Your task to perform on an android device: Open Google Chrome Image 0: 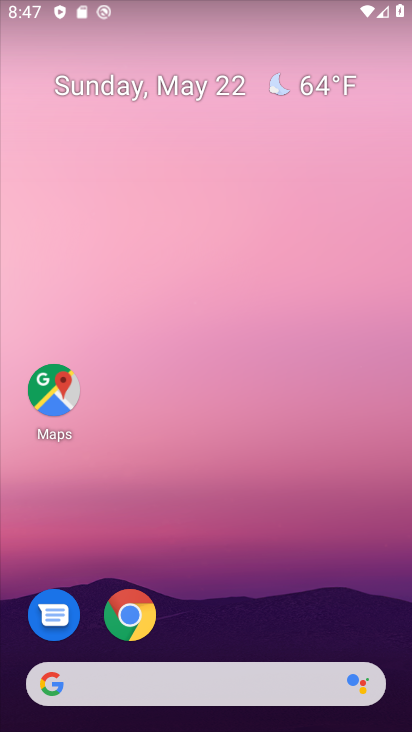
Step 0: click (139, 623)
Your task to perform on an android device: Open Google Chrome Image 1: 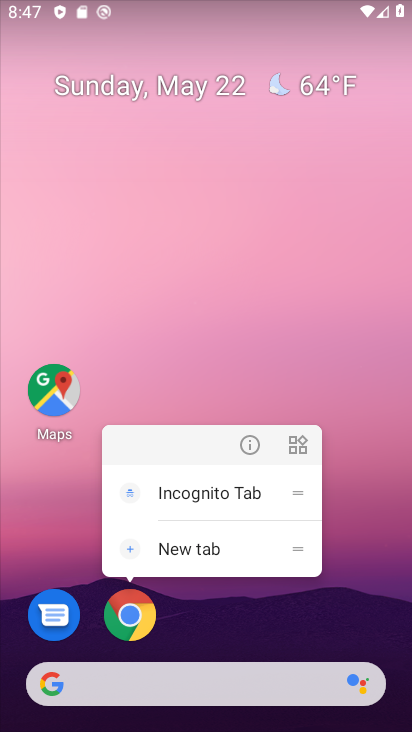
Step 1: click (139, 622)
Your task to perform on an android device: Open Google Chrome Image 2: 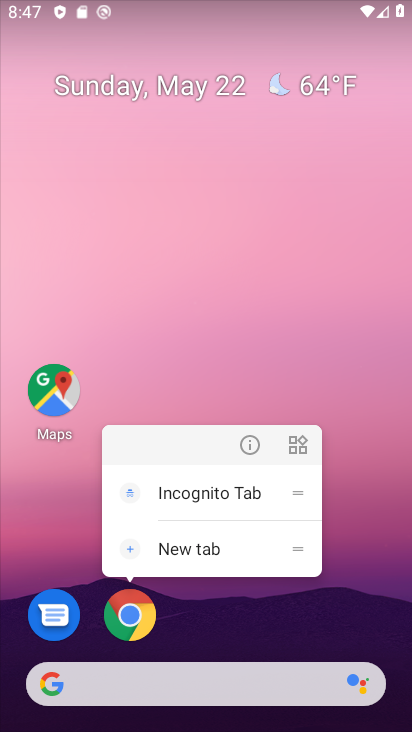
Step 2: click (130, 635)
Your task to perform on an android device: Open Google Chrome Image 3: 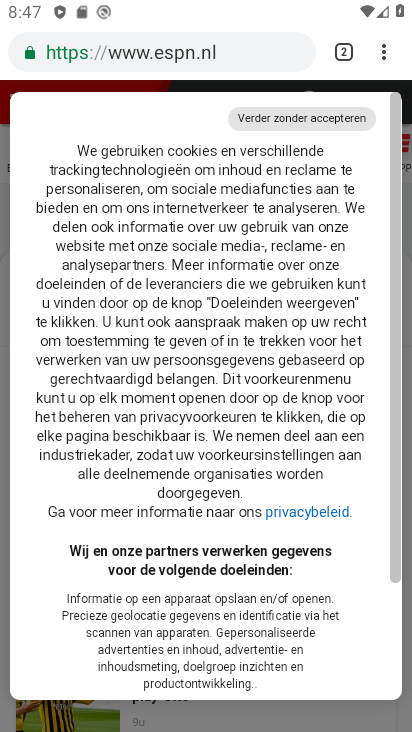
Step 3: task complete